Your task to perform on an android device: toggle sleep mode Image 0: 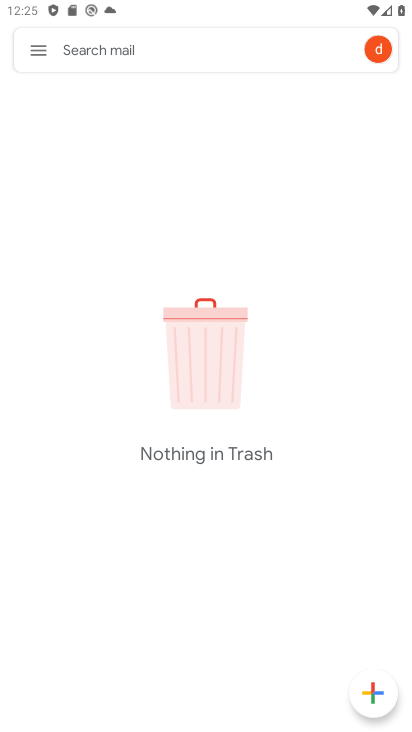
Step 0: press home button
Your task to perform on an android device: toggle sleep mode Image 1: 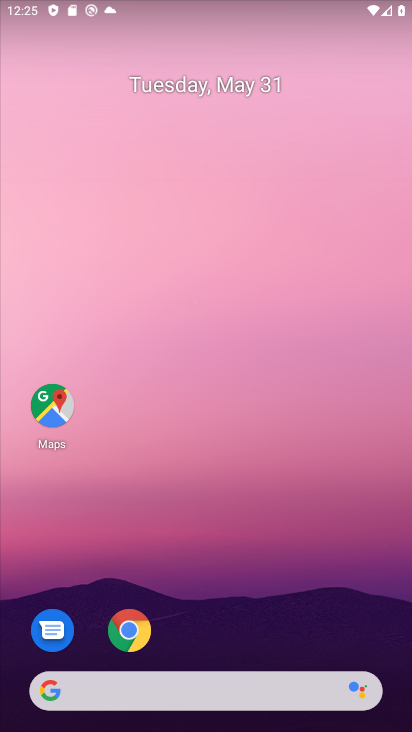
Step 1: drag from (181, 654) to (186, 259)
Your task to perform on an android device: toggle sleep mode Image 2: 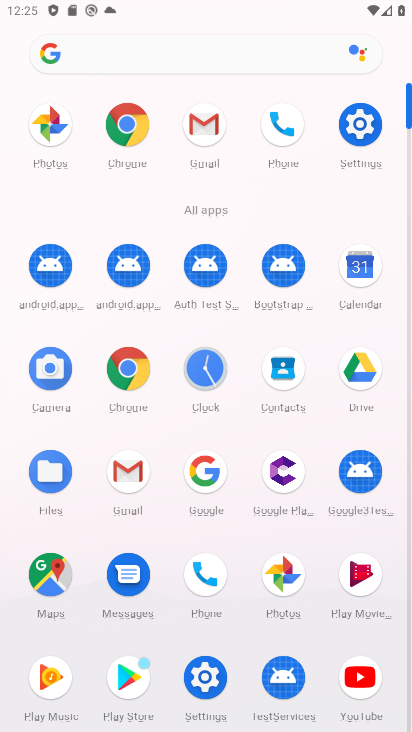
Step 2: click (361, 123)
Your task to perform on an android device: toggle sleep mode Image 3: 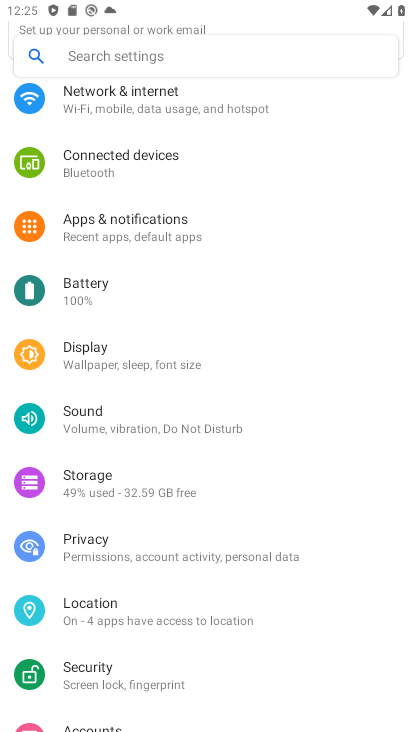
Step 3: click (145, 370)
Your task to perform on an android device: toggle sleep mode Image 4: 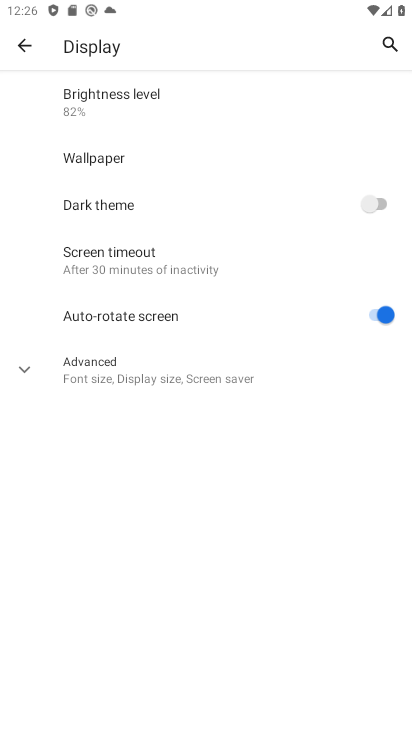
Step 4: task complete